Your task to perform on an android device: open the mobile data screen to see how much data has been used Image 0: 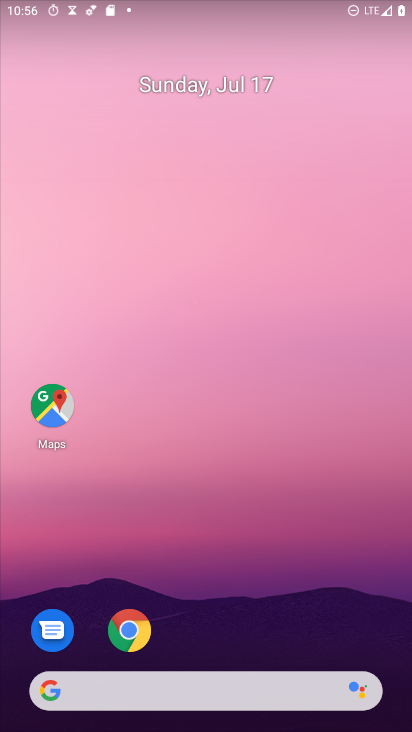
Step 0: drag from (226, 611) to (145, 1)
Your task to perform on an android device: open the mobile data screen to see how much data has been used Image 1: 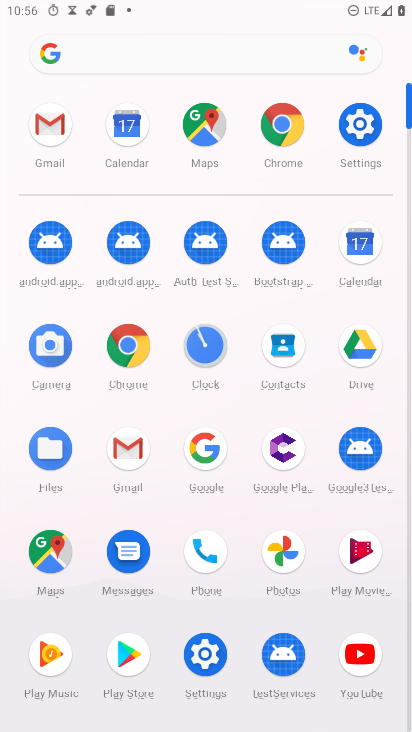
Step 1: click (371, 126)
Your task to perform on an android device: open the mobile data screen to see how much data has been used Image 2: 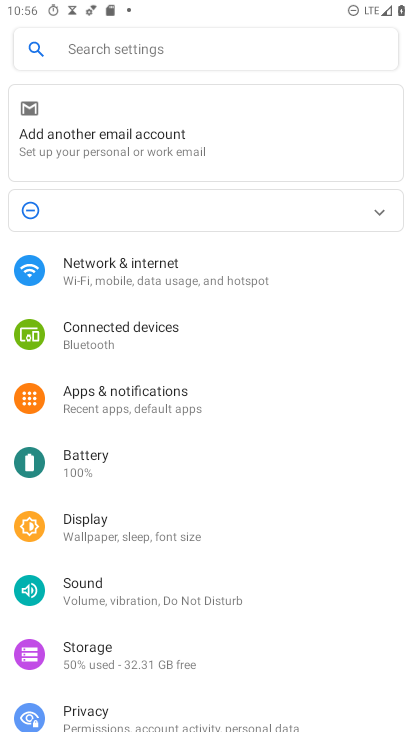
Step 2: click (159, 264)
Your task to perform on an android device: open the mobile data screen to see how much data has been used Image 3: 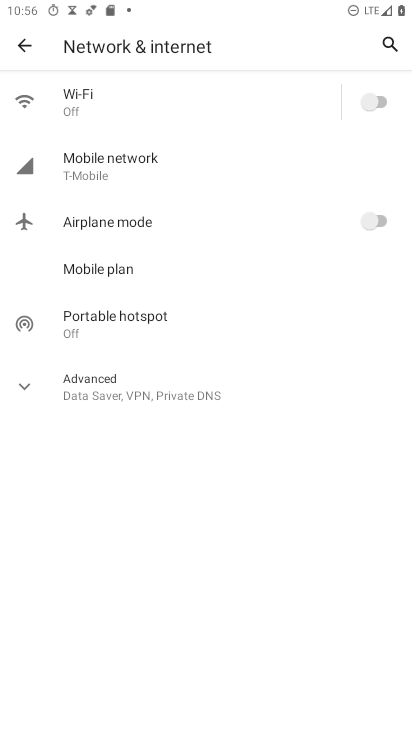
Step 3: click (154, 162)
Your task to perform on an android device: open the mobile data screen to see how much data has been used Image 4: 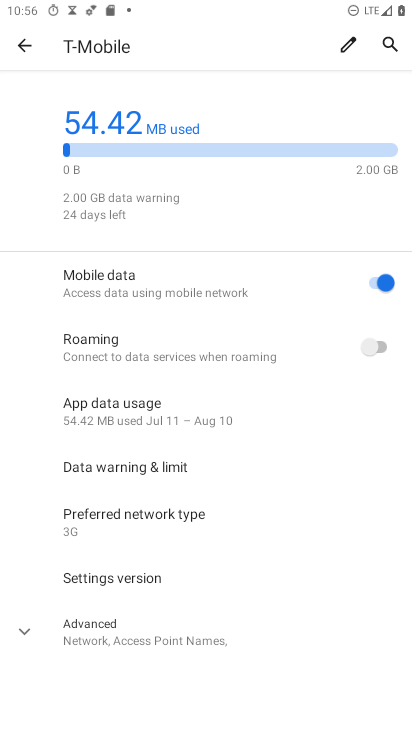
Step 4: task complete